Your task to perform on an android device: Go to sound settings Image 0: 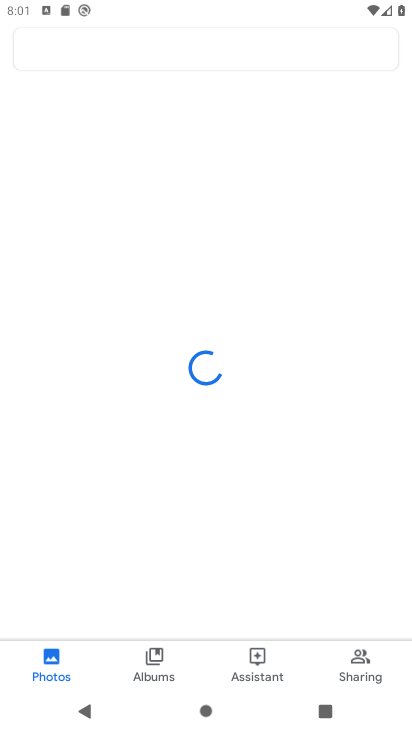
Step 0: press home button
Your task to perform on an android device: Go to sound settings Image 1: 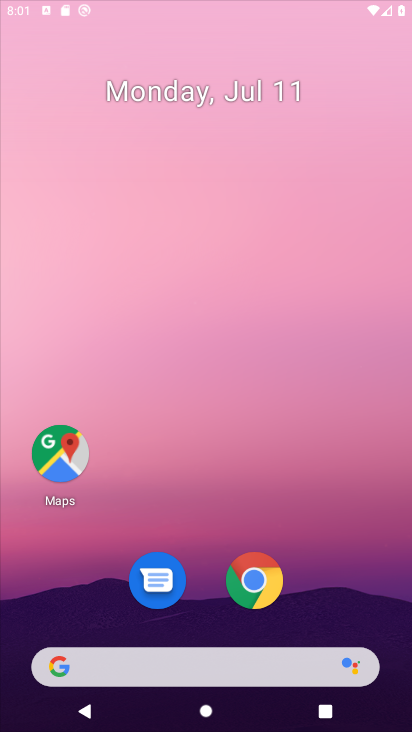
Step 1: drag from (387, 649) to (198, 1)
Your task to perform on an android device: Go to sound settings Image 2: 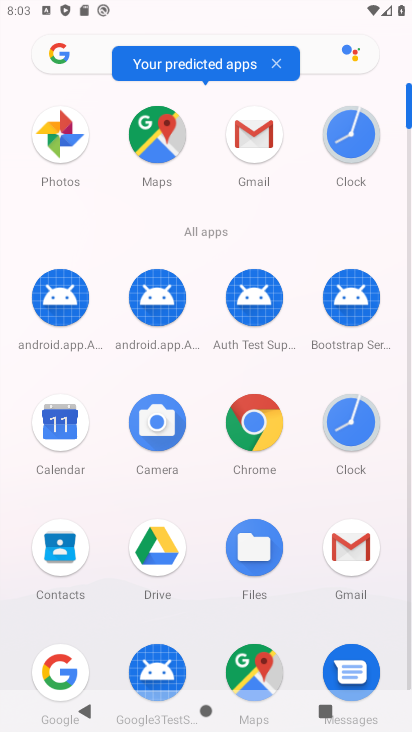
Step 2: drag from (204, 518) to (277, 27)
Your task to perform on an android device: Go to sound settings Image 3: 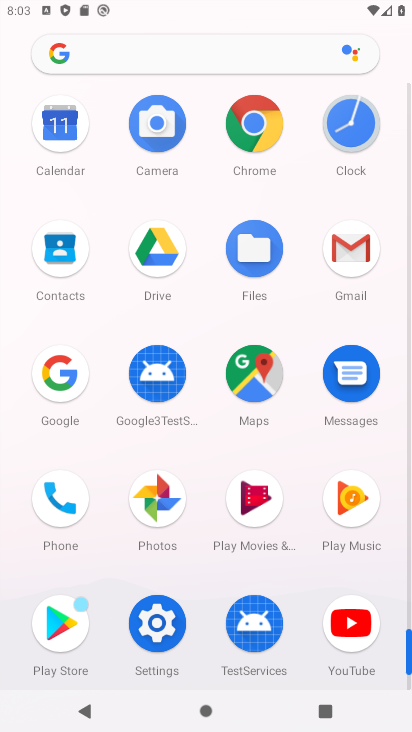
Step 3: click (142, 632)
Your task to perform on an android device: Go to sound settings Image 4: 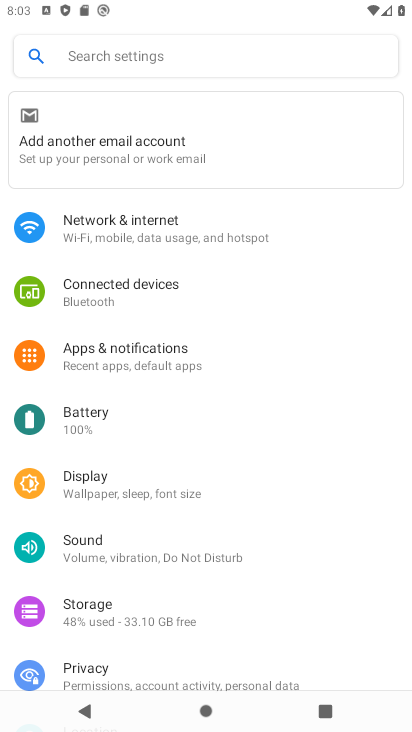
Step 4: click (110, 562)
Your task to perform on an android device: Go to sound settings Image 5: 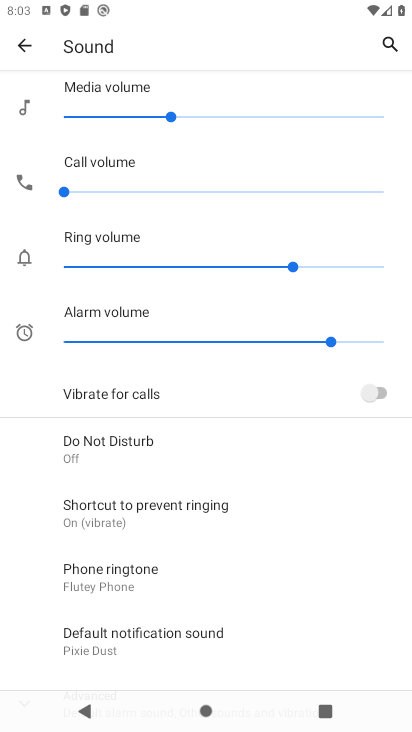
Step 5: task complete